Your task to perform on an android device: toggle data saver in the chrome app Image 0: 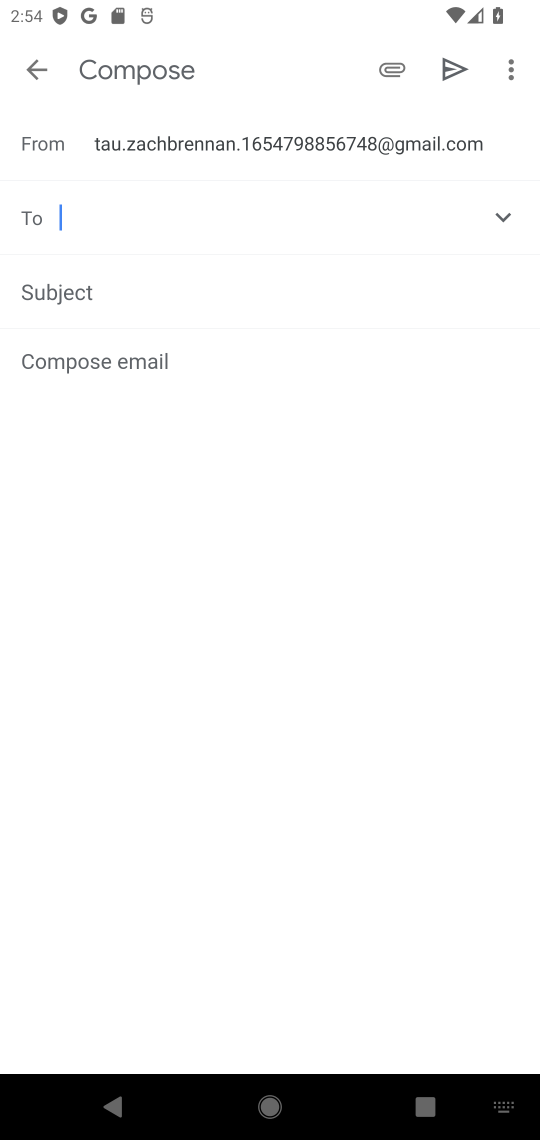
Step 0: drag from (239, 873) to (278, 385)
Your task to perform on an android device: toggle data saver in the chrome app Image 1: 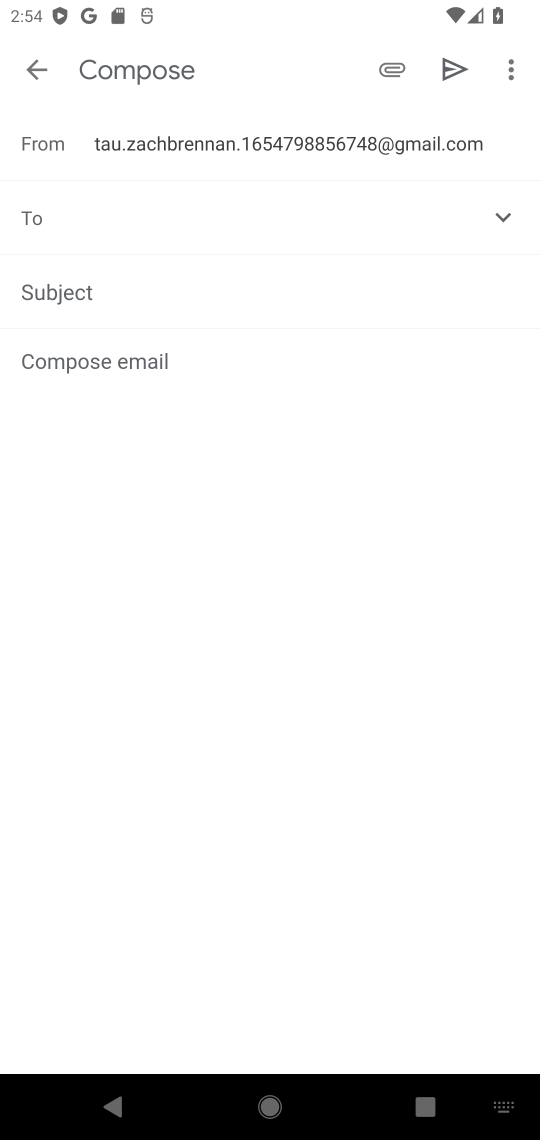
Step 1: press home button
Your task to perform on an android device: toggle data saver in the chrome app Image 2: 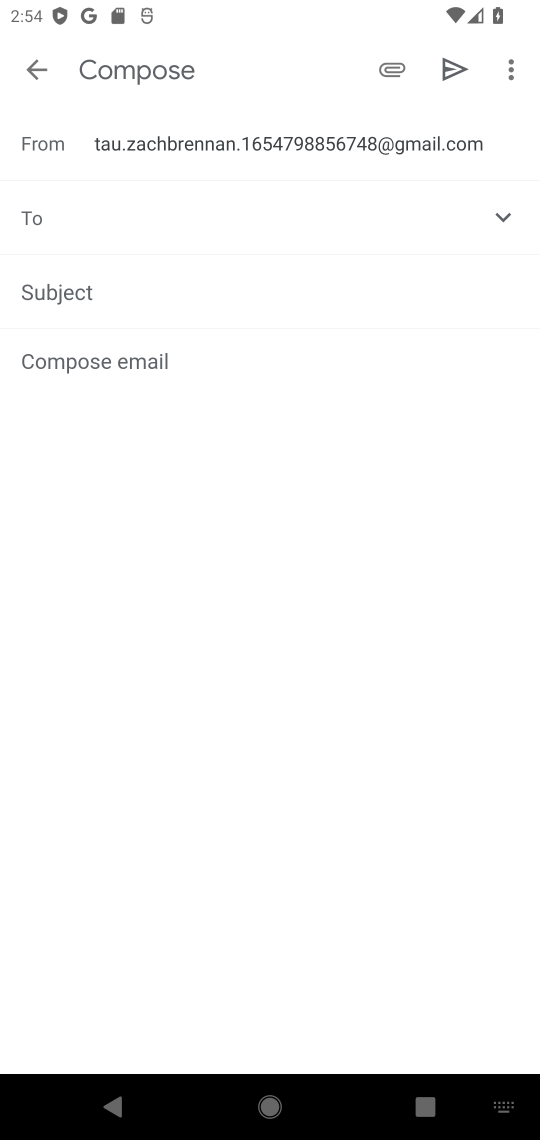
Step 2: press home button
Your task to perform on an android device: toggle data saver in the chrome app Image 3: 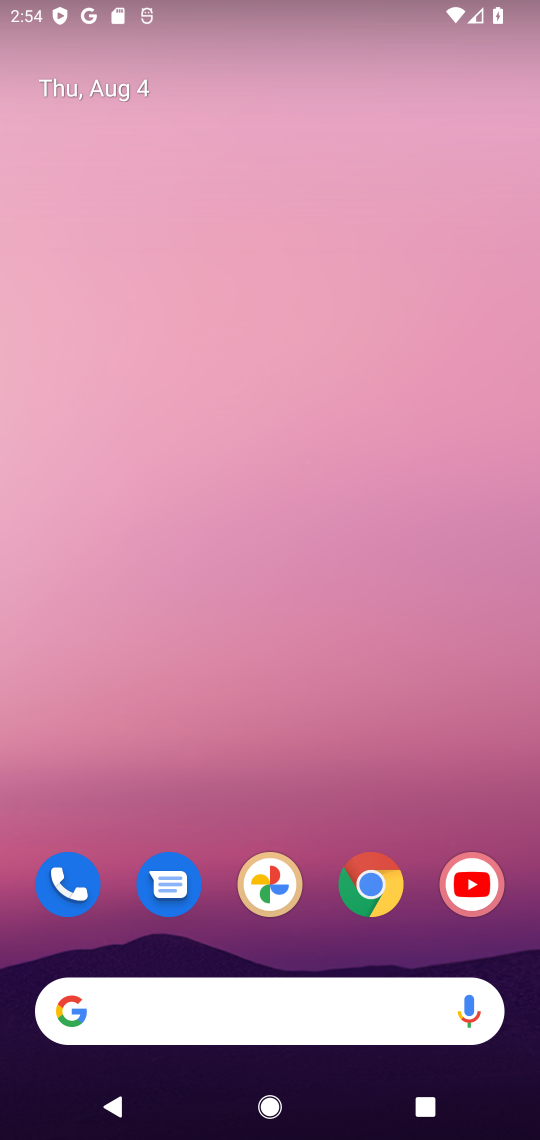
Step 3: drag from (217, 830) to (453, 104)
Your task to perform on an android device: toggle data saver in the chrome app Image 4: 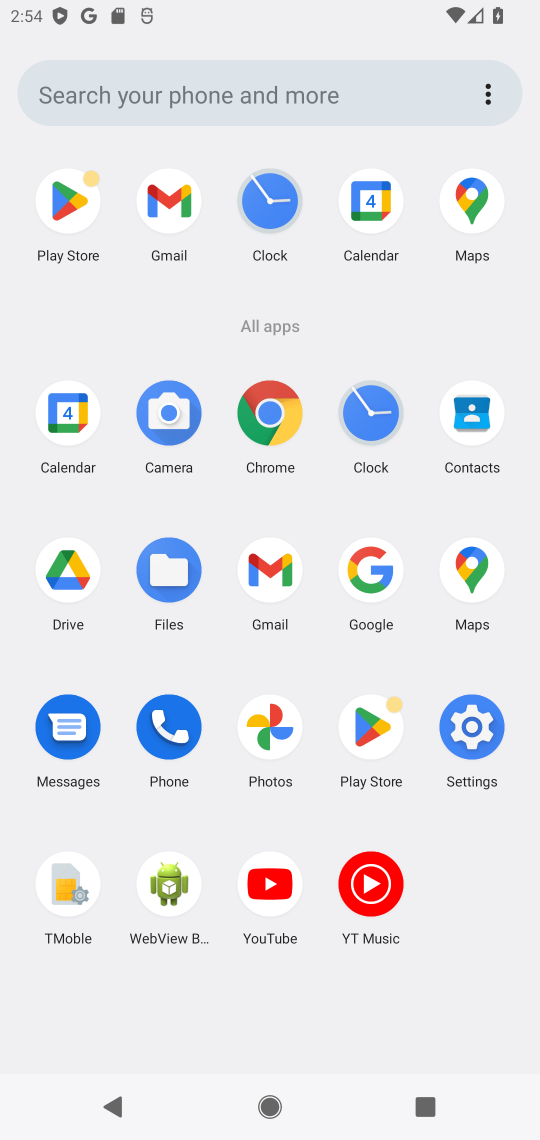
Step 4: click (278, 410)
Your task to perform on an android device: toggle data saver in the chrome app Image 5: 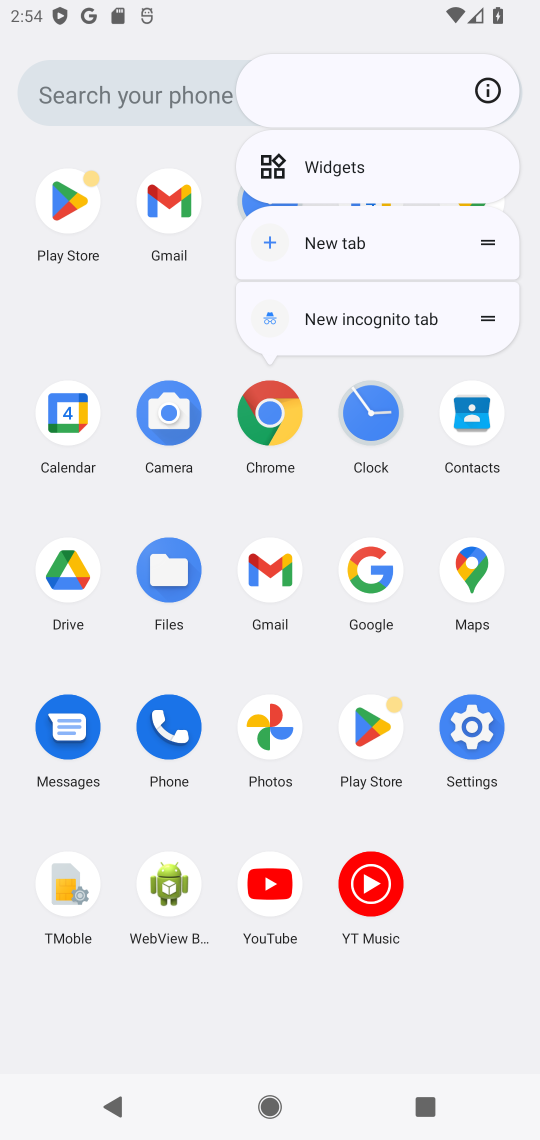
Step 5: click (503, 87)
Your task to perform on an android device: toggle data saver in the chrome app Image 6: 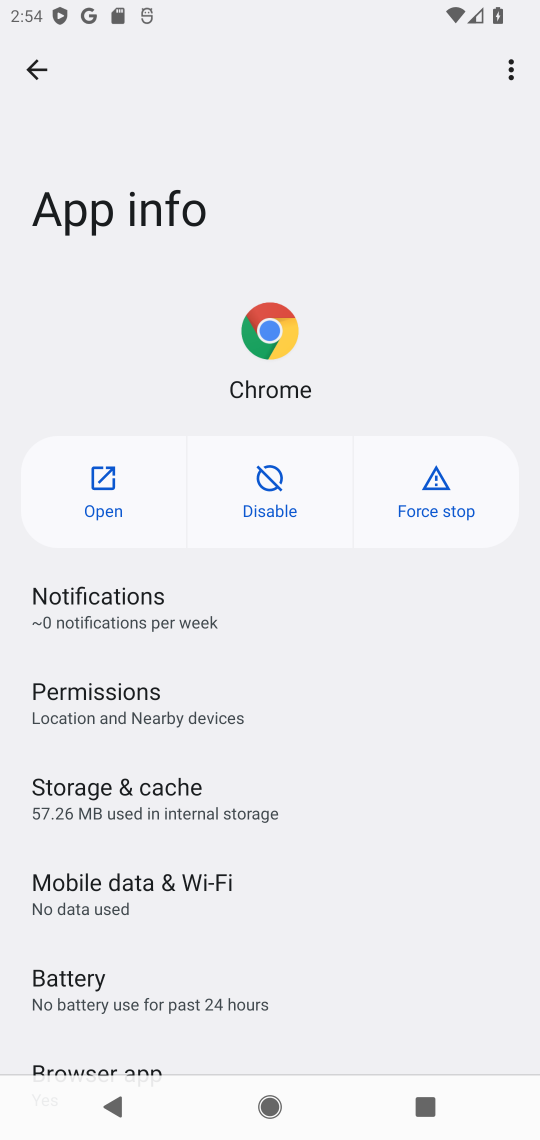
Step 6: click (117, 469)
Your task to perform on an android device: toggle data saver in the chrome app Image 7: 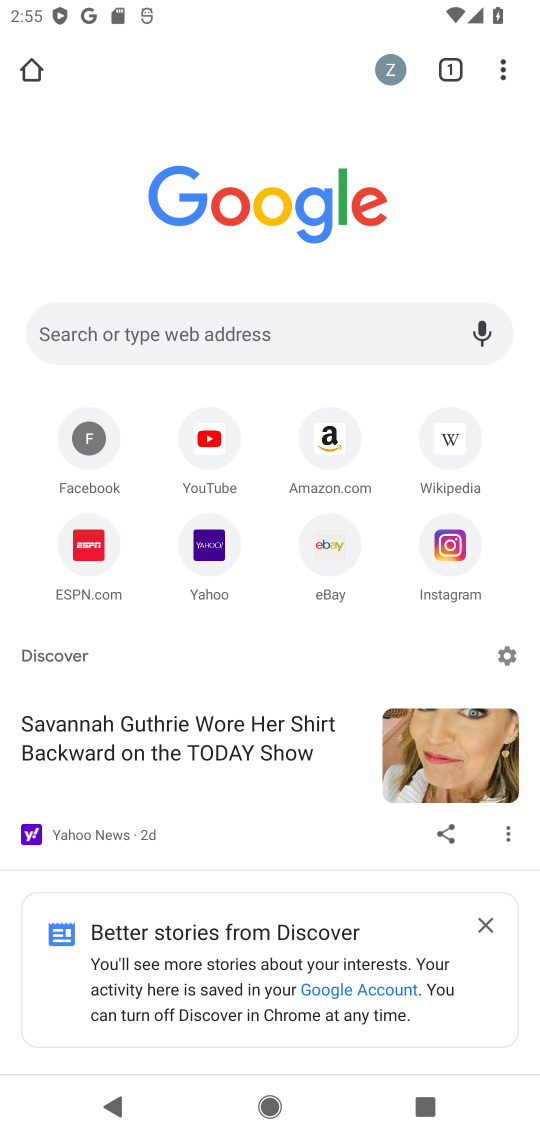
Step 7: drag from (498, 69) to (176, 360)
Your task to perform on an android device: toggle data saver in the chrome app Image 8: 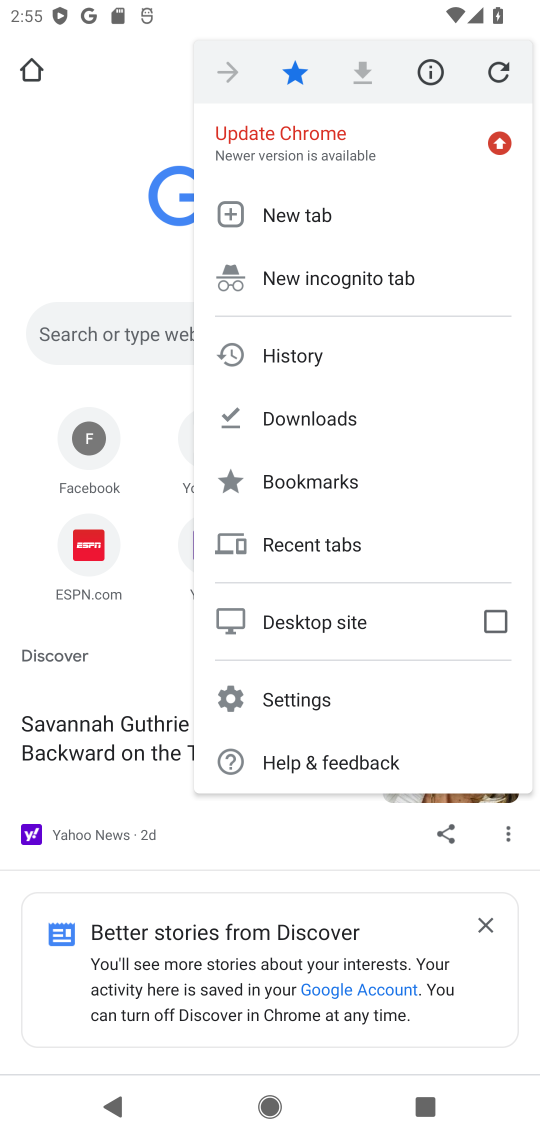
Step 8: drag from (170, 365) to (335, 775)
Your task to perform on an android device: toggle data saver in the chrome app Image 9: 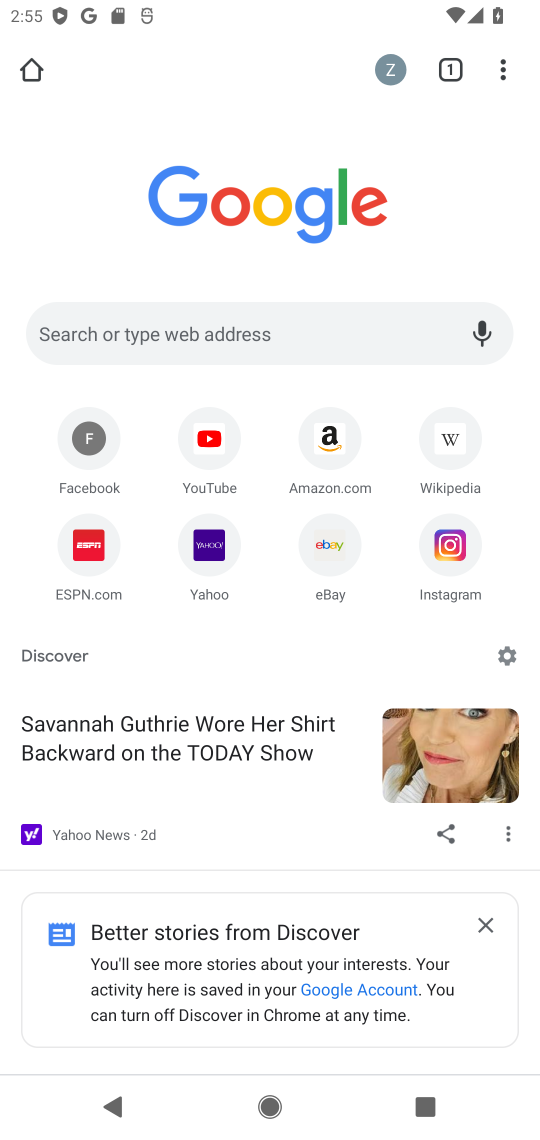
Step 9: drag from (497, 64) to (304, 702)
Your task to perform on an android device: toggle data saver in the chrome app Image 10: 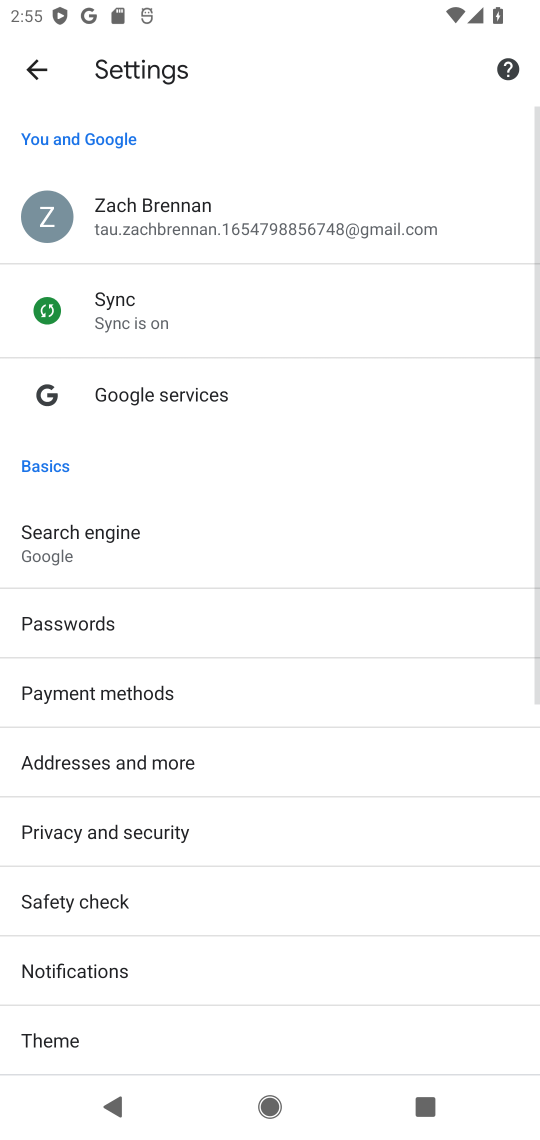
Step 10: drag from (258, 842) to (401, 171)
Your task to perform on an android device: toggle data saver in the chrome app Image 11: 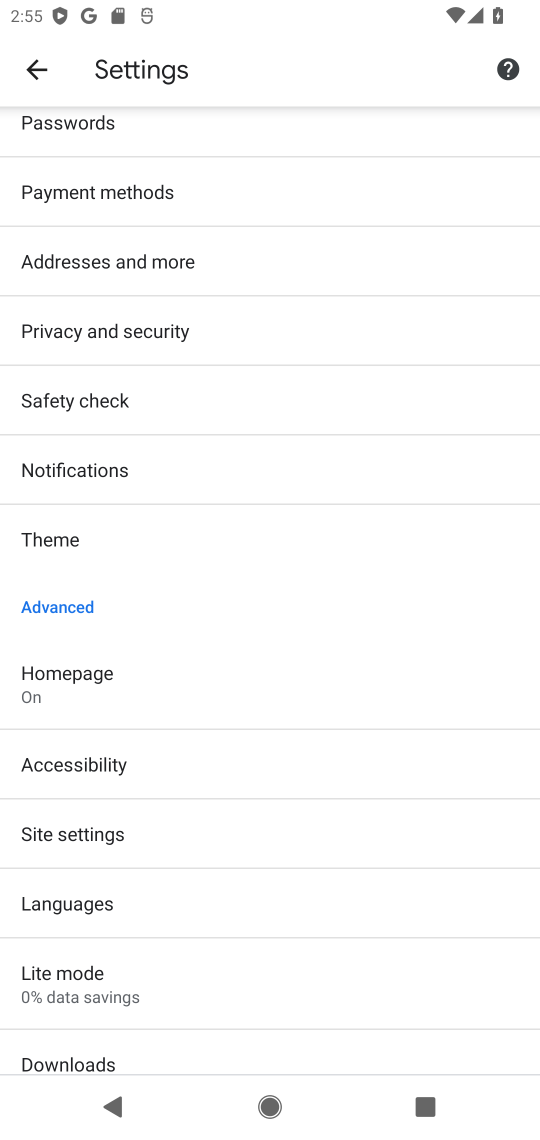
Step 11: click (130, 992)
Your task to perform on an android device: toggle data saver in the chrome app Image 12: 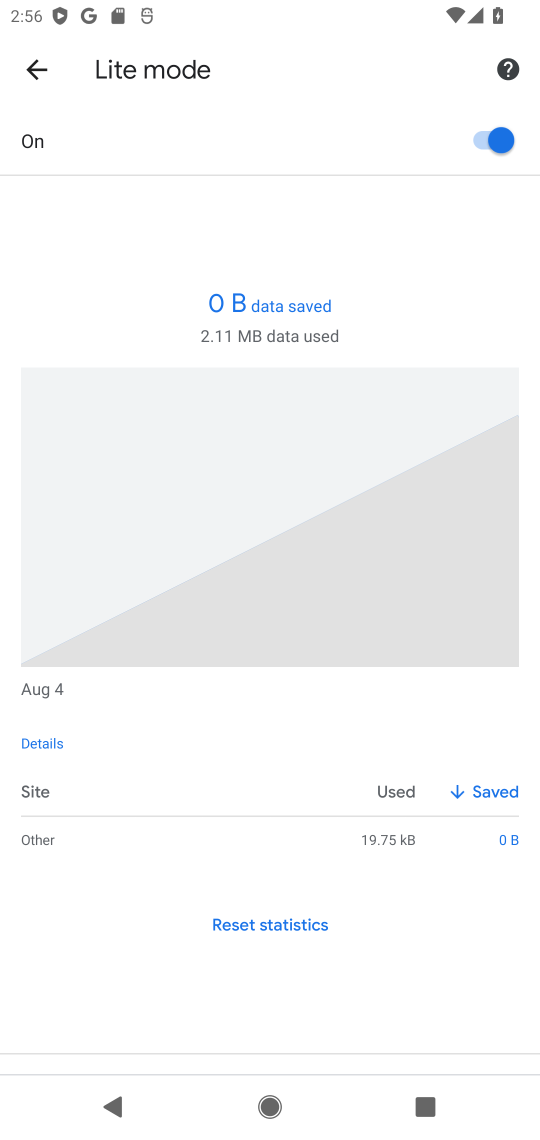
Step 12: drag from (295, 835) to (476, 271)
Your task to perform on an android device: toggle data saver in the chrome app Image 13: 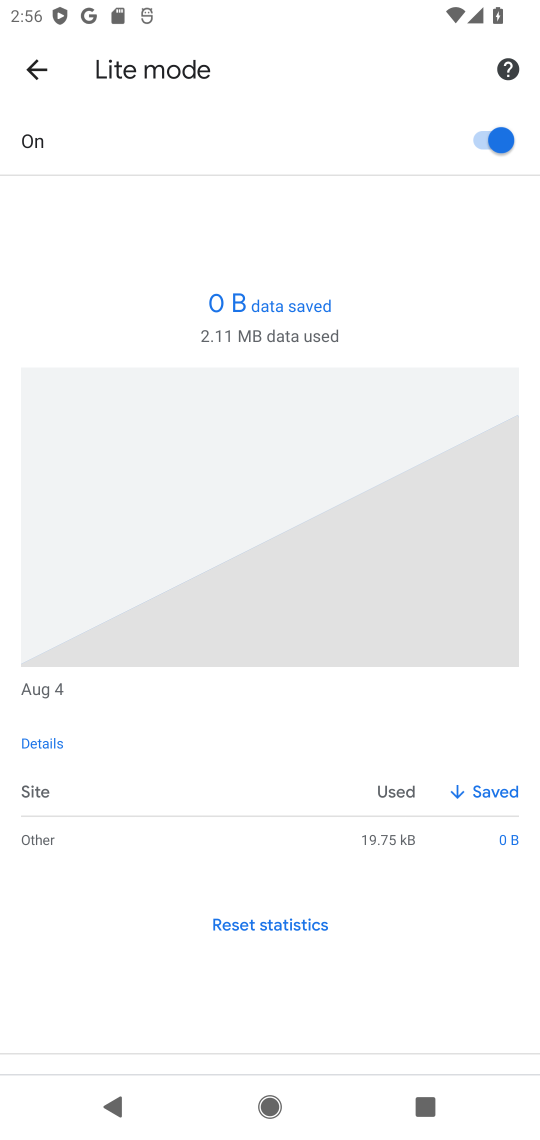
Step 13: click (494, 123)
Your task to perform on an android device: toggle data saver in the chrome app Image 14: 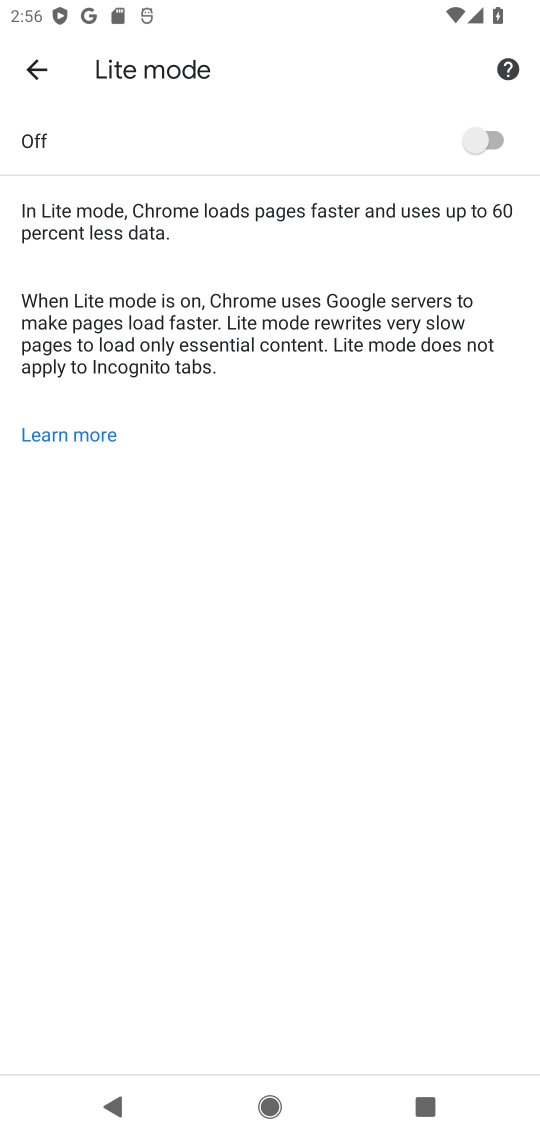
Step 14: task complete